Your task to perform on an android device: star an email in the gmail app Image 0: 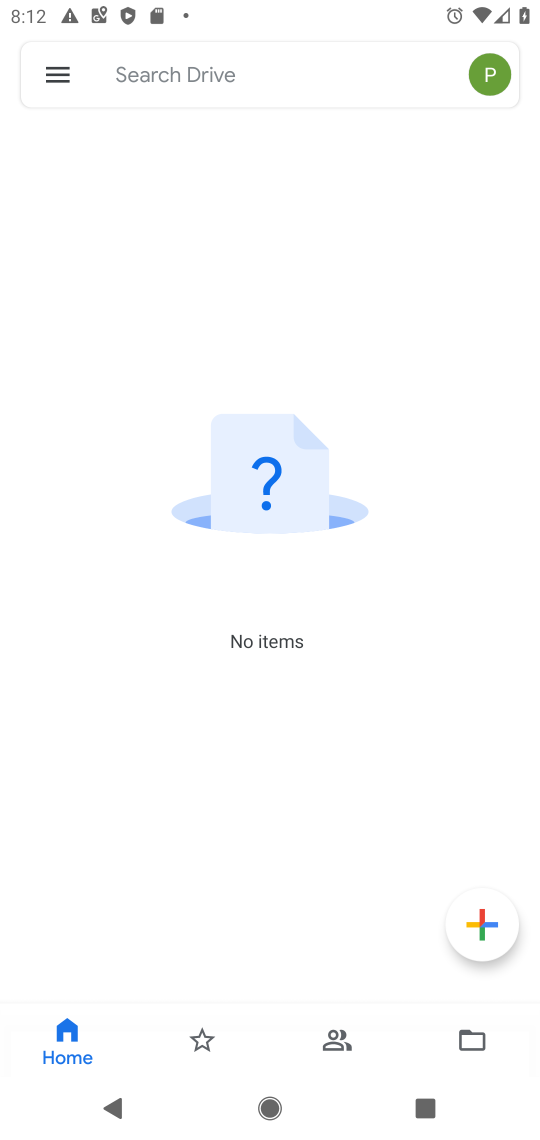
Step 0: press home button
Your task to perform on an android device: star an email in the gmail app Image 1: 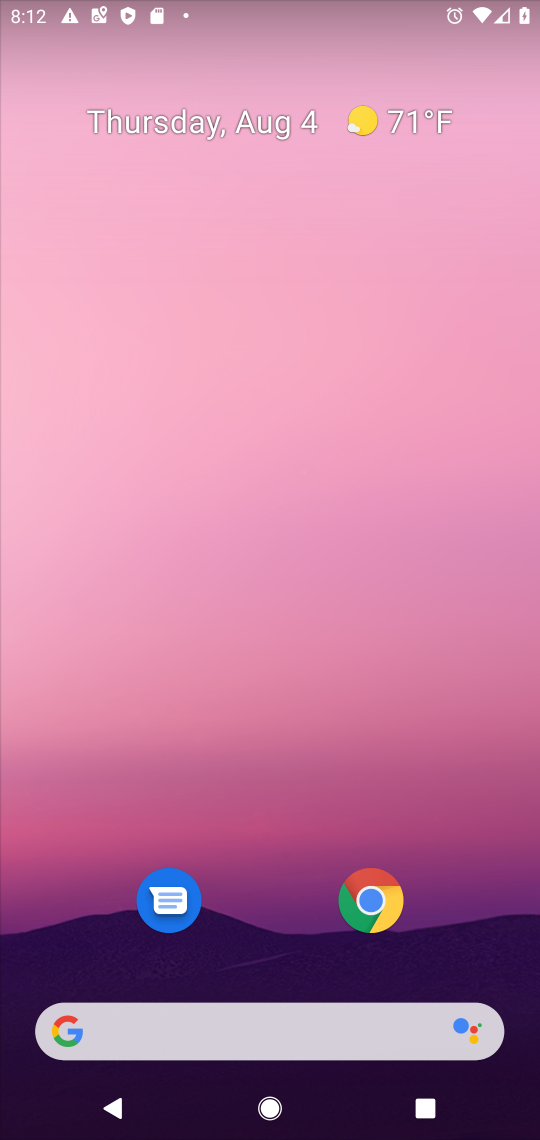
Step 1: drag from (214, 1038) to (248, 354)
Your task to perform on an android device: star an email in the gmail app Image 2: 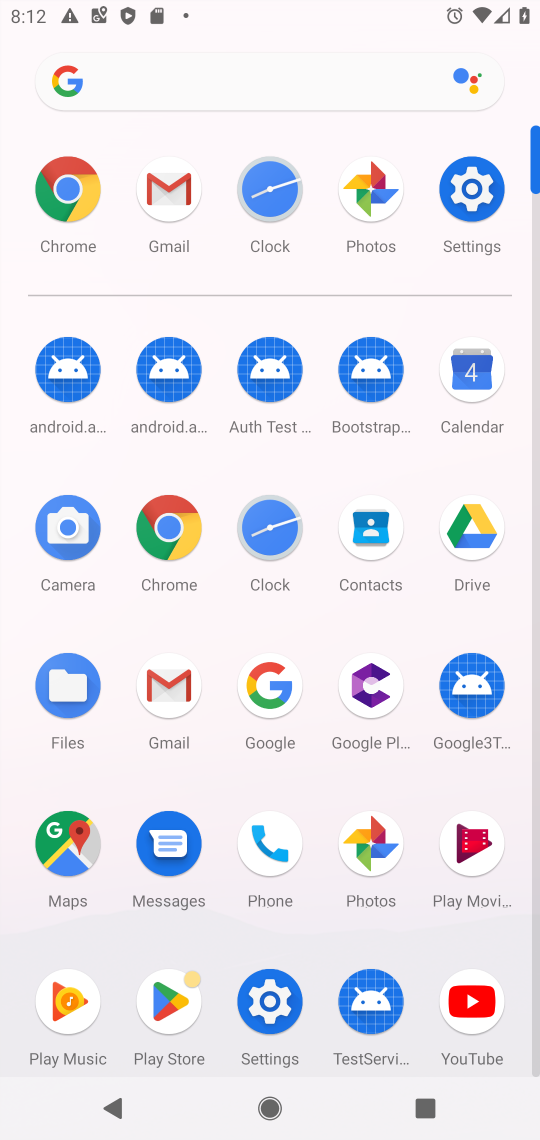
Step 2: click (167, 191)
Your task to perform on an android device: star an email in the gmail app Image 3: 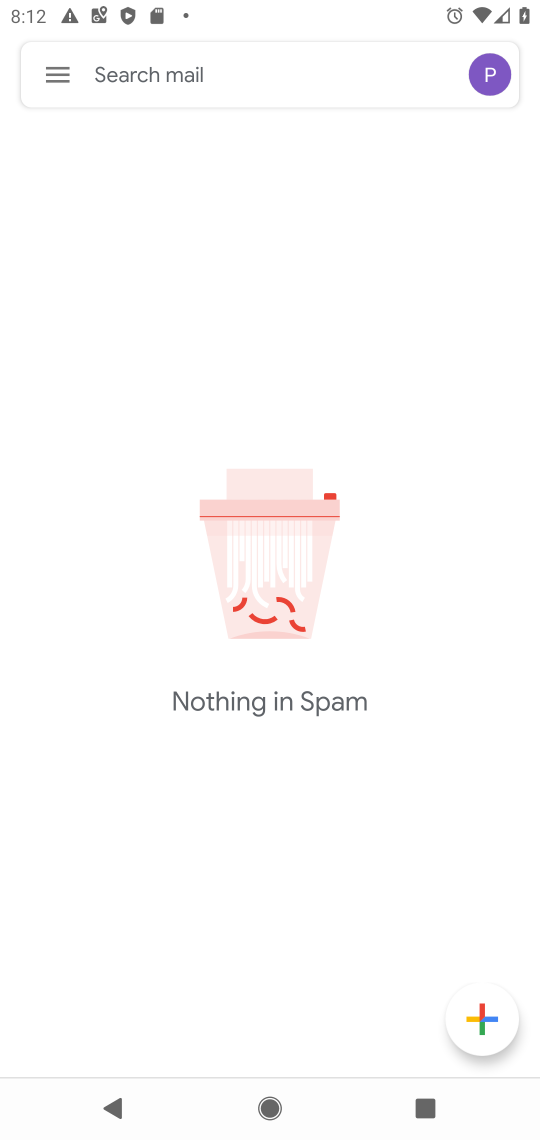
Step 3: click (62, 77)
Your task to perform on an android device: star an email in the gmail app Image 4: 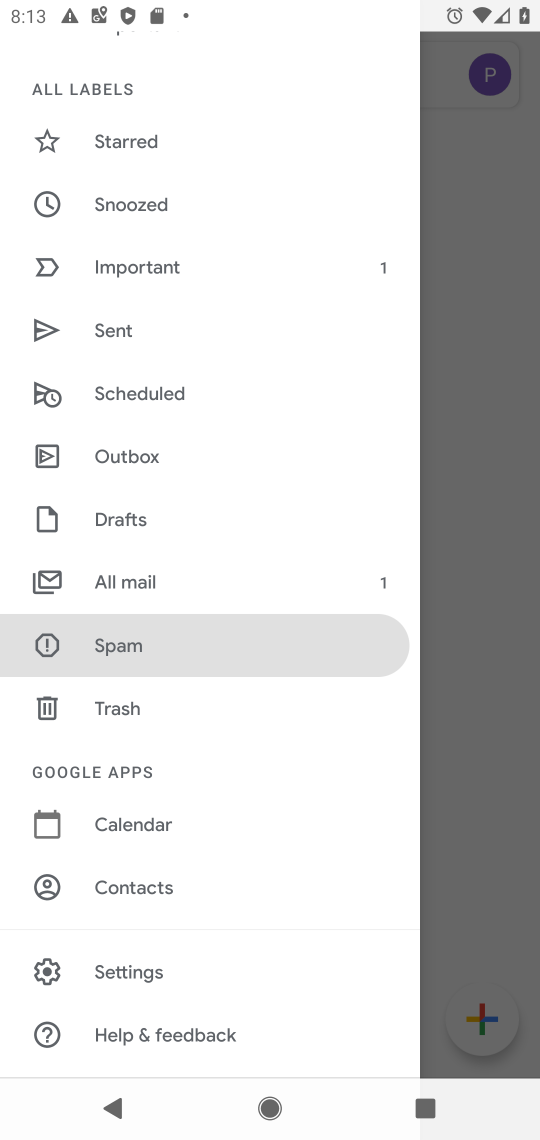
Step 4: click (122, 586)
Your task to perform on an android device: star an email in the gmail app Image 5: 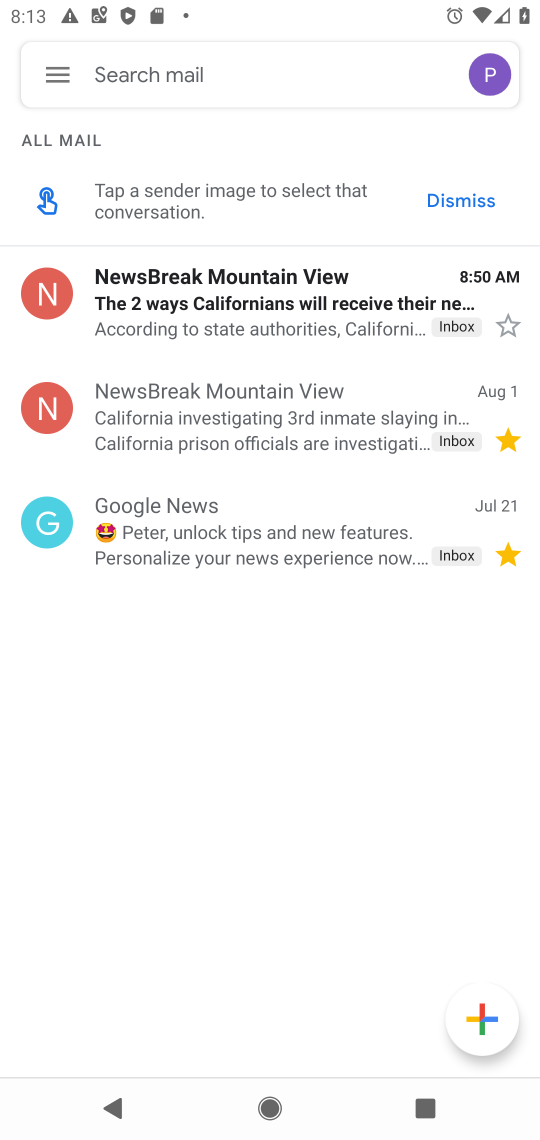
Step 5: click (502, 326)
Your task to perform on an android device: star an email in the gmail app Image 6: 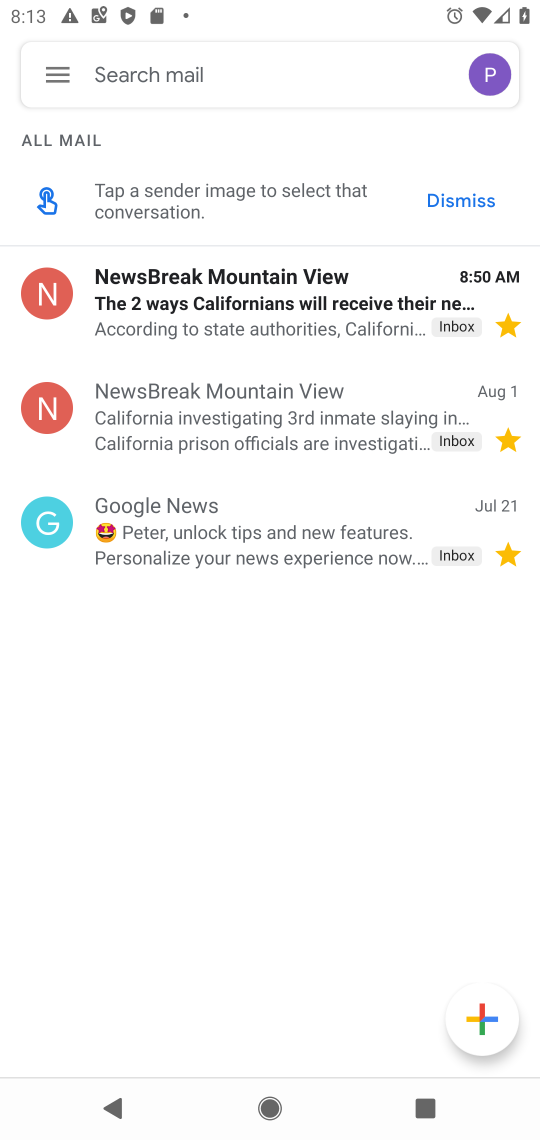
Step 6: task complete